Your task to perform on an android device: change the clock style Image 0: 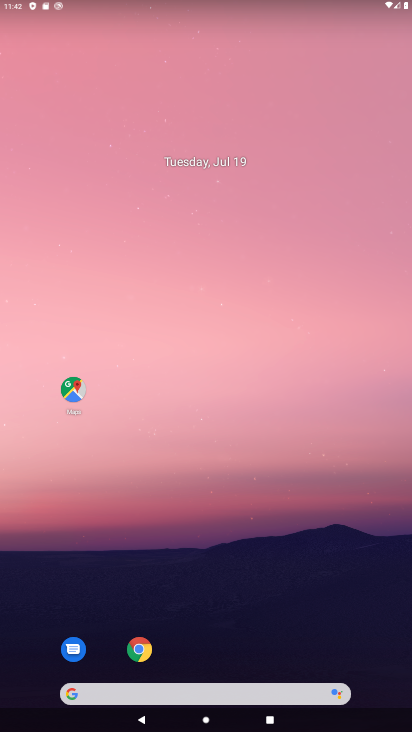
Step 0: drag from (178, 617) to (273, 190)
Your task to perform on an android device: change the clock style Image 1: 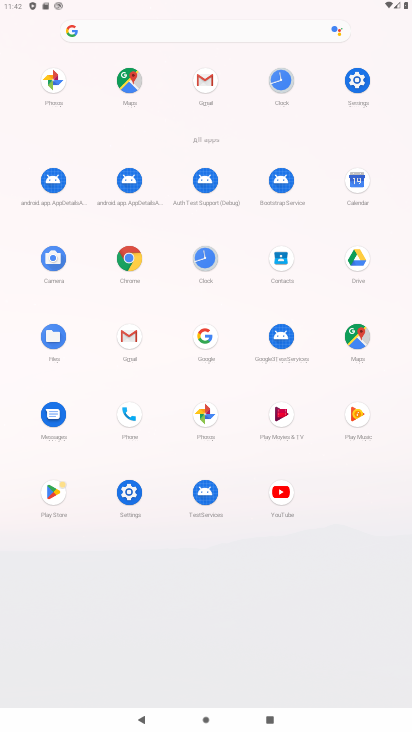
Step 1: click (211, 253)
Your task to perform on an android device: change the clock style Image 2: 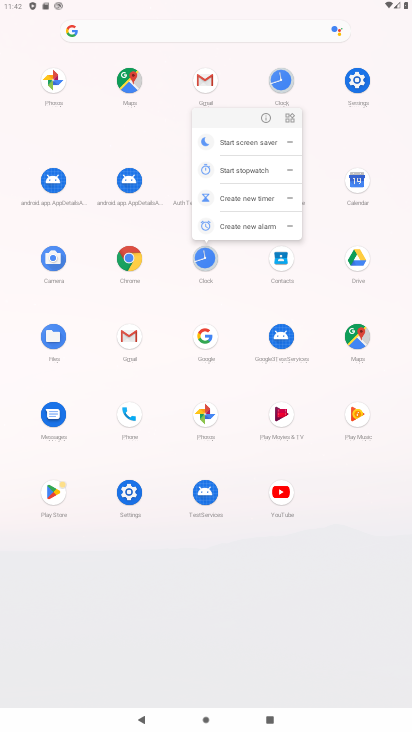
Step 2: click (261, 109)
Your task to perform on an android device: change the clock style Image 3: 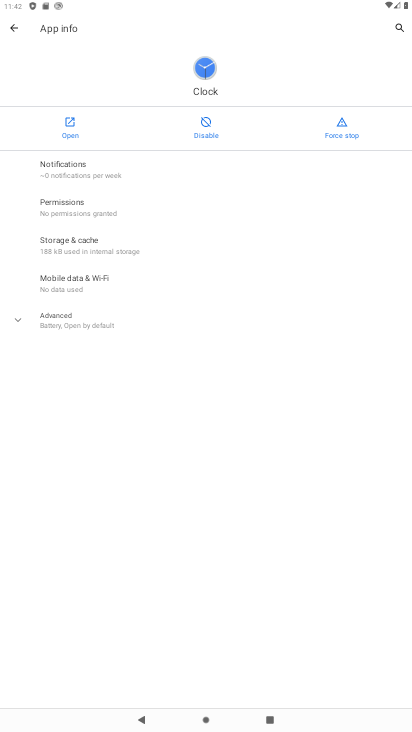
Step 3: click (67, 116)
Your task to perform on an android device: change the clock style Image 4: 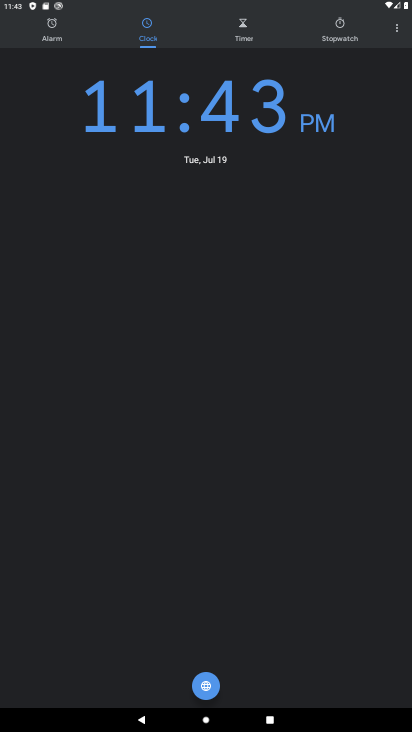
Step 4: click (395, 30)
Your task to perform on an android device: change the clock style Image 5: 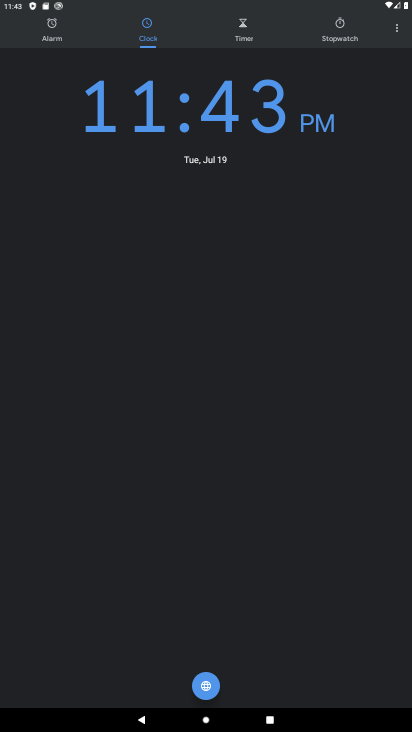
Step 5: click (381, 54)
Your task to perform on an android device: change the clock style Image 6: 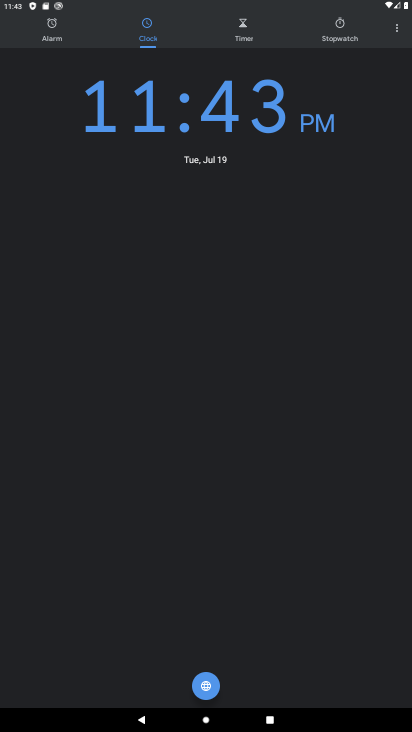
Step 6: click (398, 29)
Your task to perform on an android device: change the clock style Image 7: 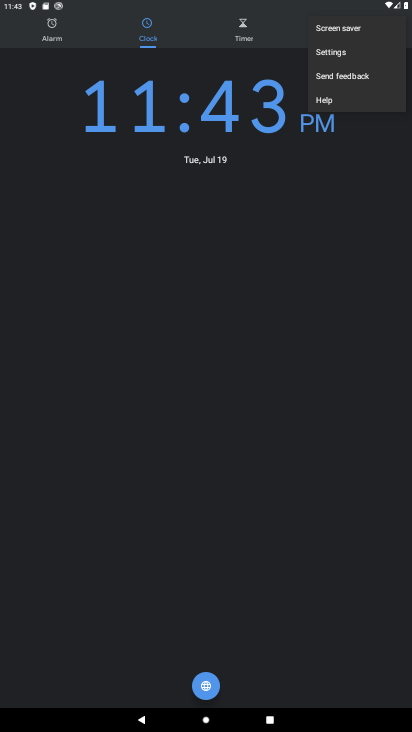
Step 7: click (348, 52)
Your task to perform on an android device: change the clock style Image 8: 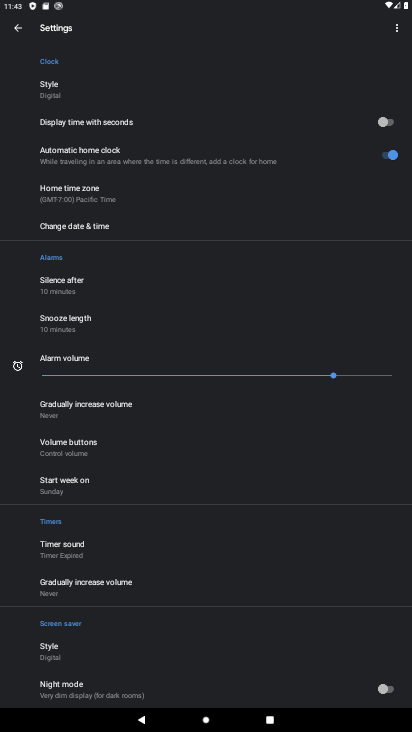
Step 8: click (66, 81)
Your task to perform on an android device: change the clock style Image 9: 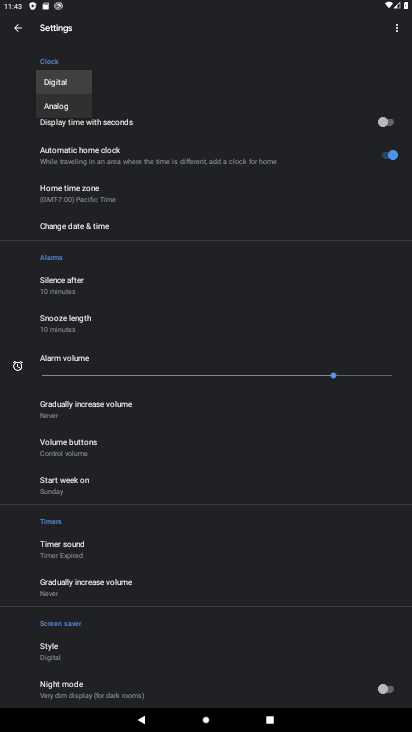
Step 9: click (63, 107)
Your task to perform on an android device: change the clock style Image 10: 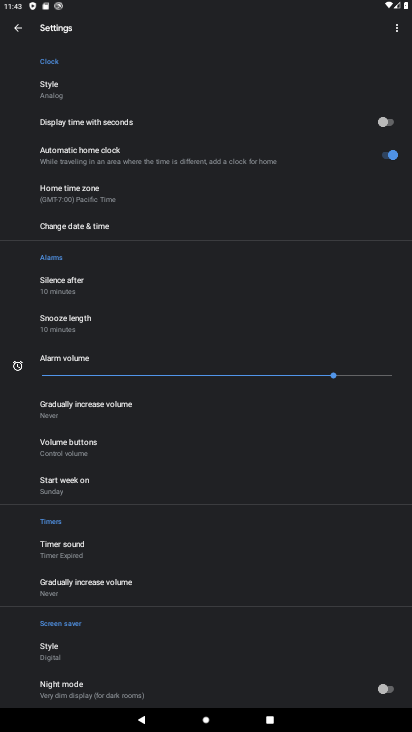
Step 10: task complete